Your task to perform on an android device: set the timer Image 0: 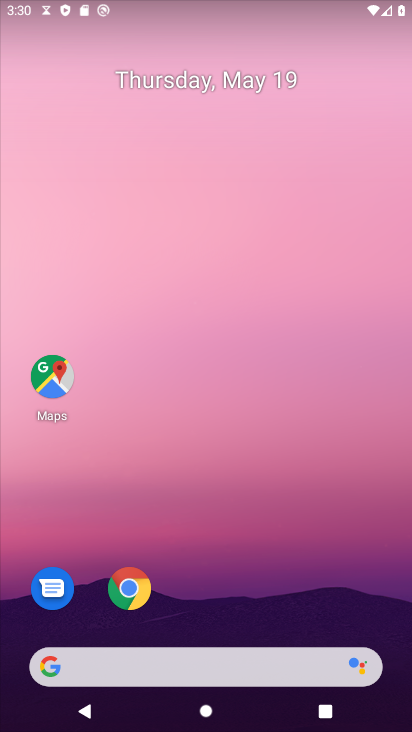
Step 0: drag from (221, 582) to (242, 145)
Your task to perform on an android device: set the timer Image 1: 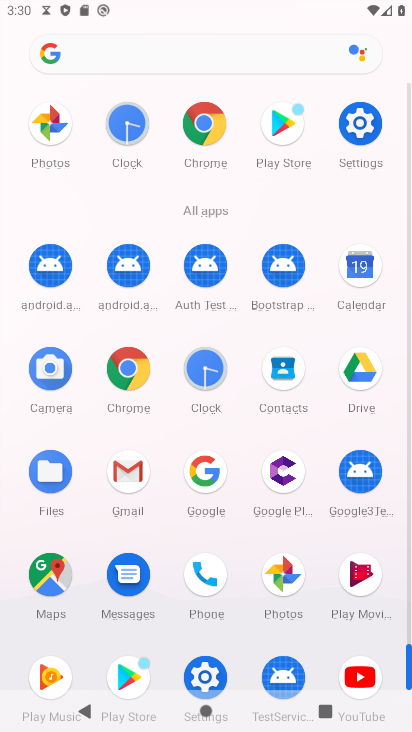
Step 1: click (204, 376)
Your task to perform on an android device: set the timer Image 2: 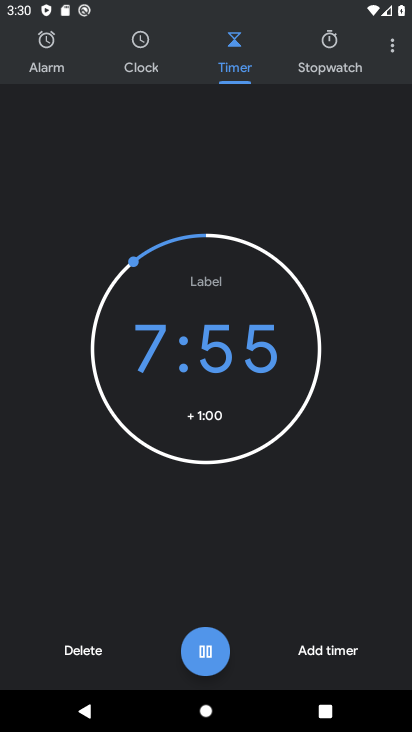
Step 2: click (82, 650)
Your task to perform on an android device: set the timer Image 3: 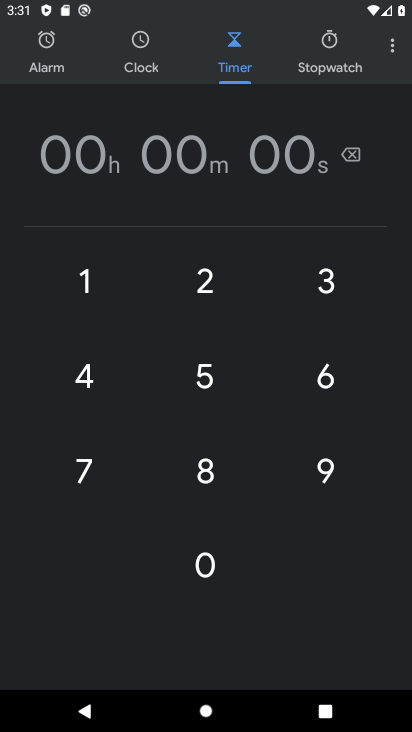
Step 3: click (76, 385)
Your task to perform on an android device: set the timer Image 4: 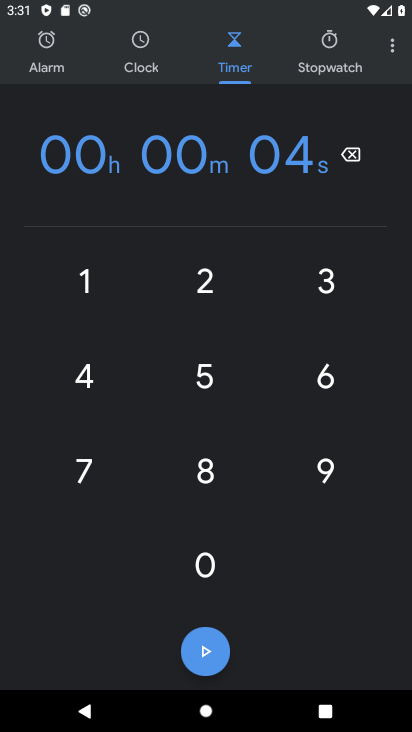
Step 4: click (313, 278)
Your task to perform on an android device: set the timer Image 5: 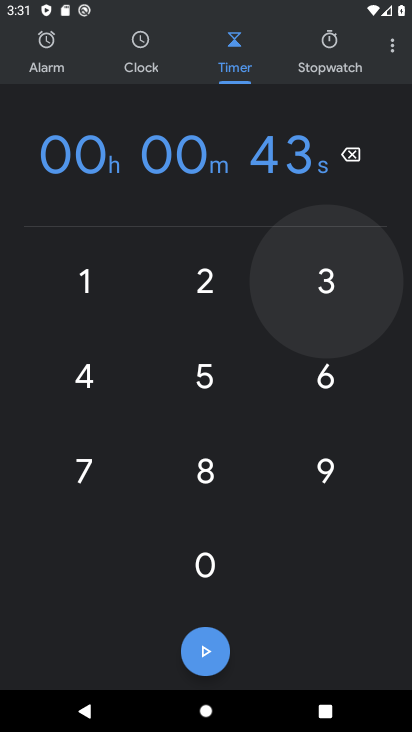
Step 5: click (322, 441)
Your task to perform on an android device: set the timer Image 6: 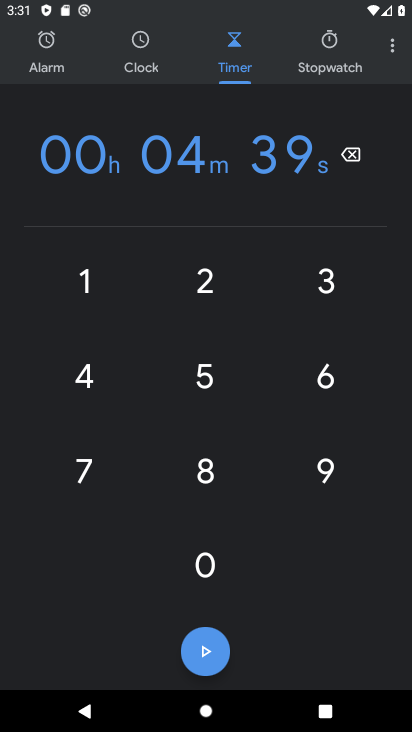
Step 6: click (214, 648)
Your task to perform on an android device: set the timer Image 7: 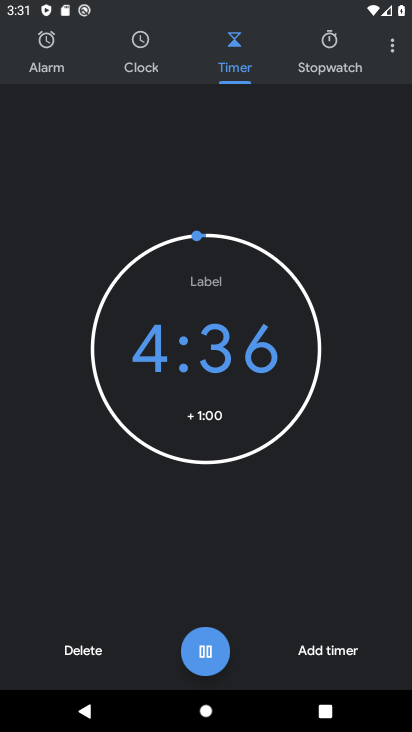
Step 7: task complete